Your task to perform on an android device: View the shopping cart on costco.com. Add razer thresher to the cart on costco.com Image 0: 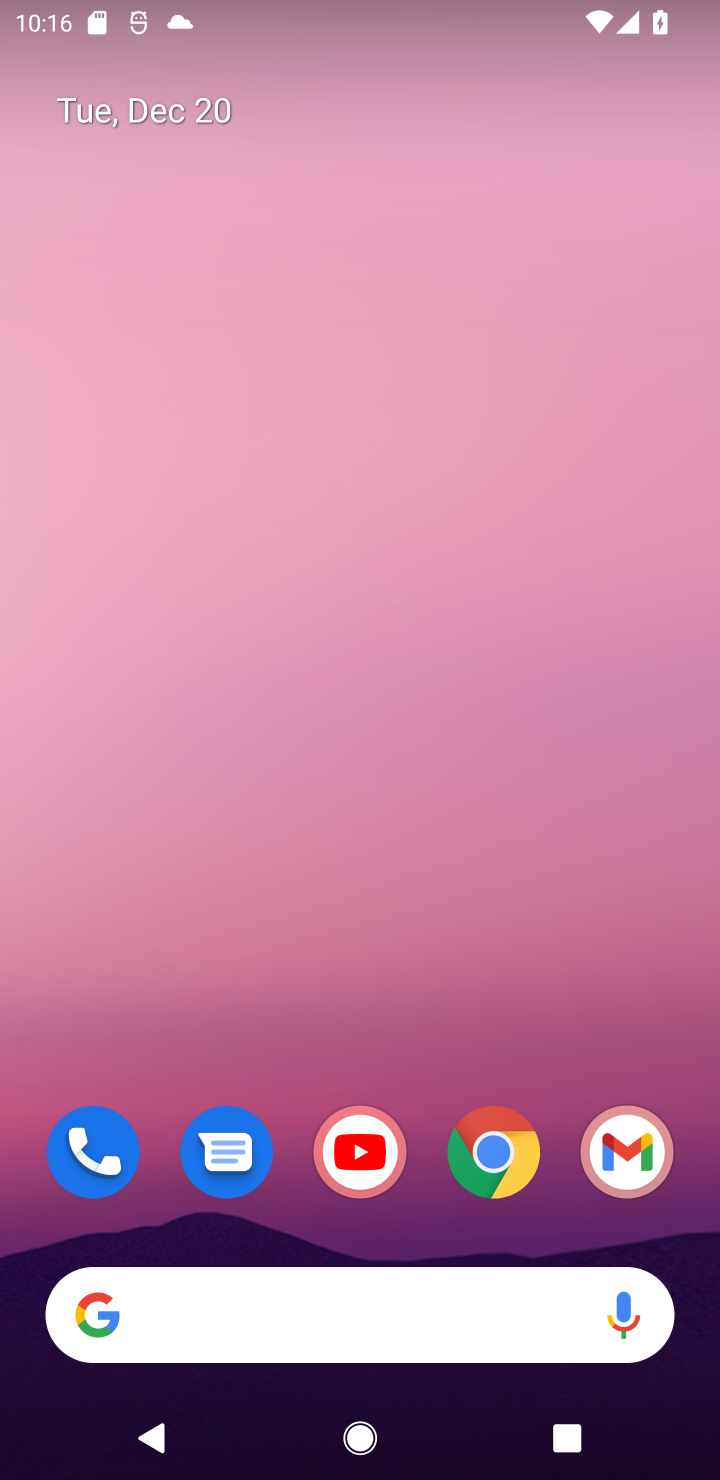
Step 0: click (502, 1164)
Your task to perform on an android device: View the shopping cart on costco.com. Add razer thresher to the cart on costco.com Image 1: 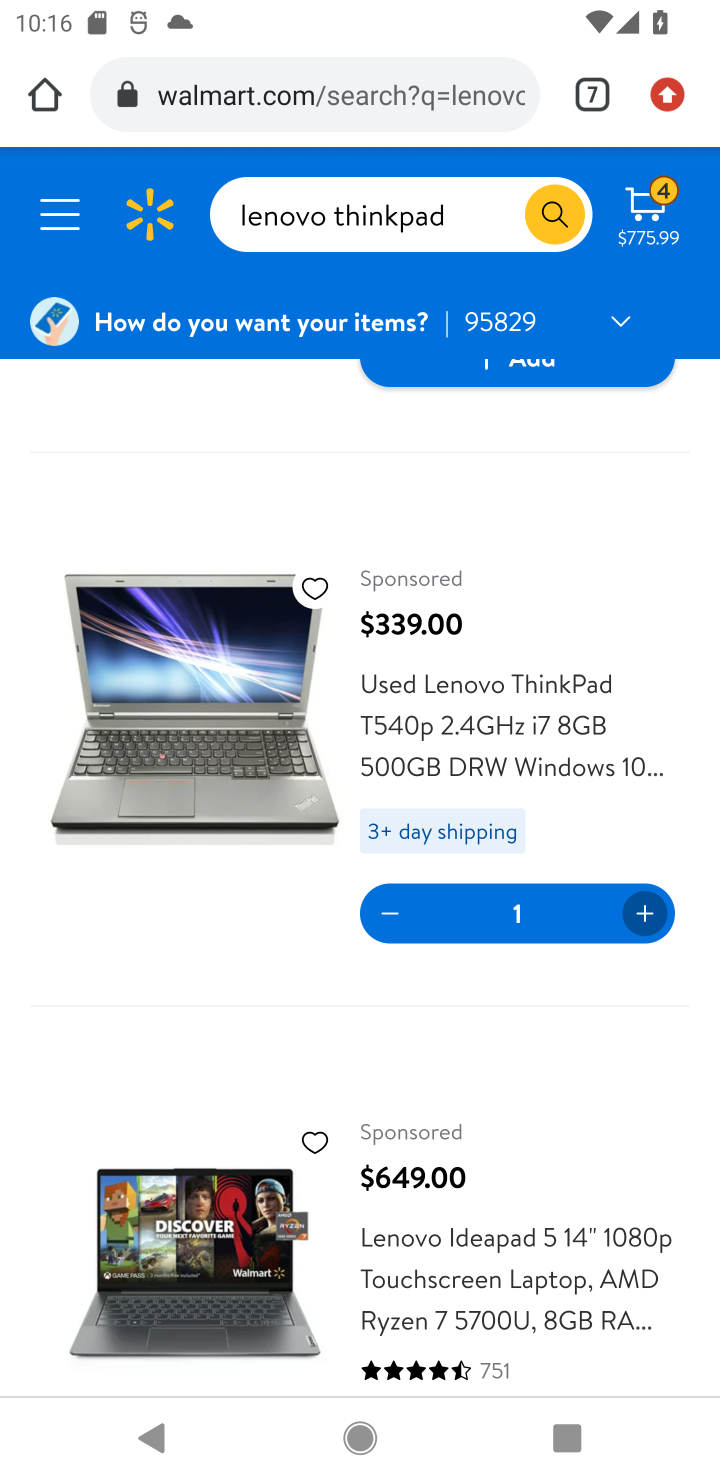
Step 1: click (583, 83)
Your task to perform on an android device: View the shopping cart on costco.com. Add razer thresher to the cart on costco.com Image 2: 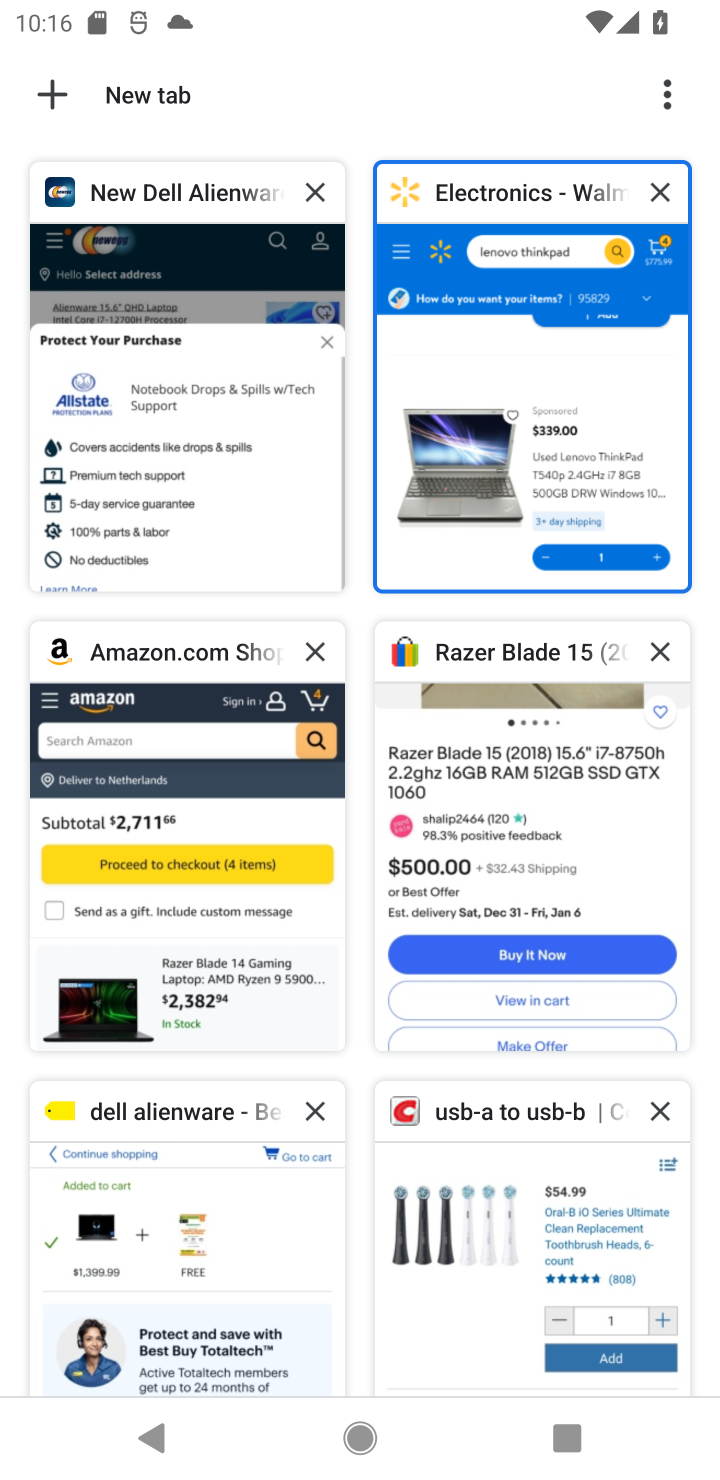
Step 2: click (489, 1202)
Your task to perform on an android device: View the shopping cart on costco.com. Add razer thresher to the cart on costco.com Image 3: 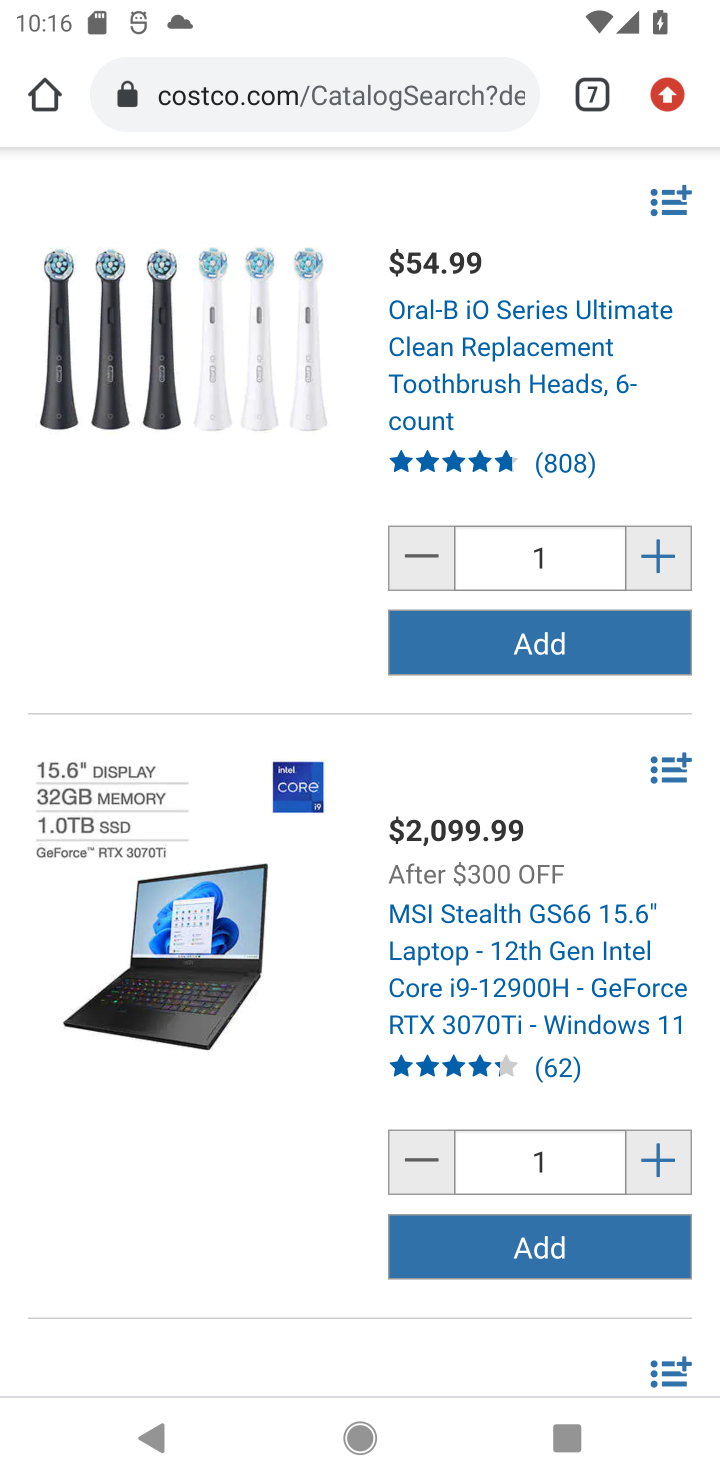
Step 3: drag from (561, 231) to (507, 1178)
Your task to perform on an android device: View the shopping cart on costco.com. Add razer thresher to the cart on costco.com Image 4: 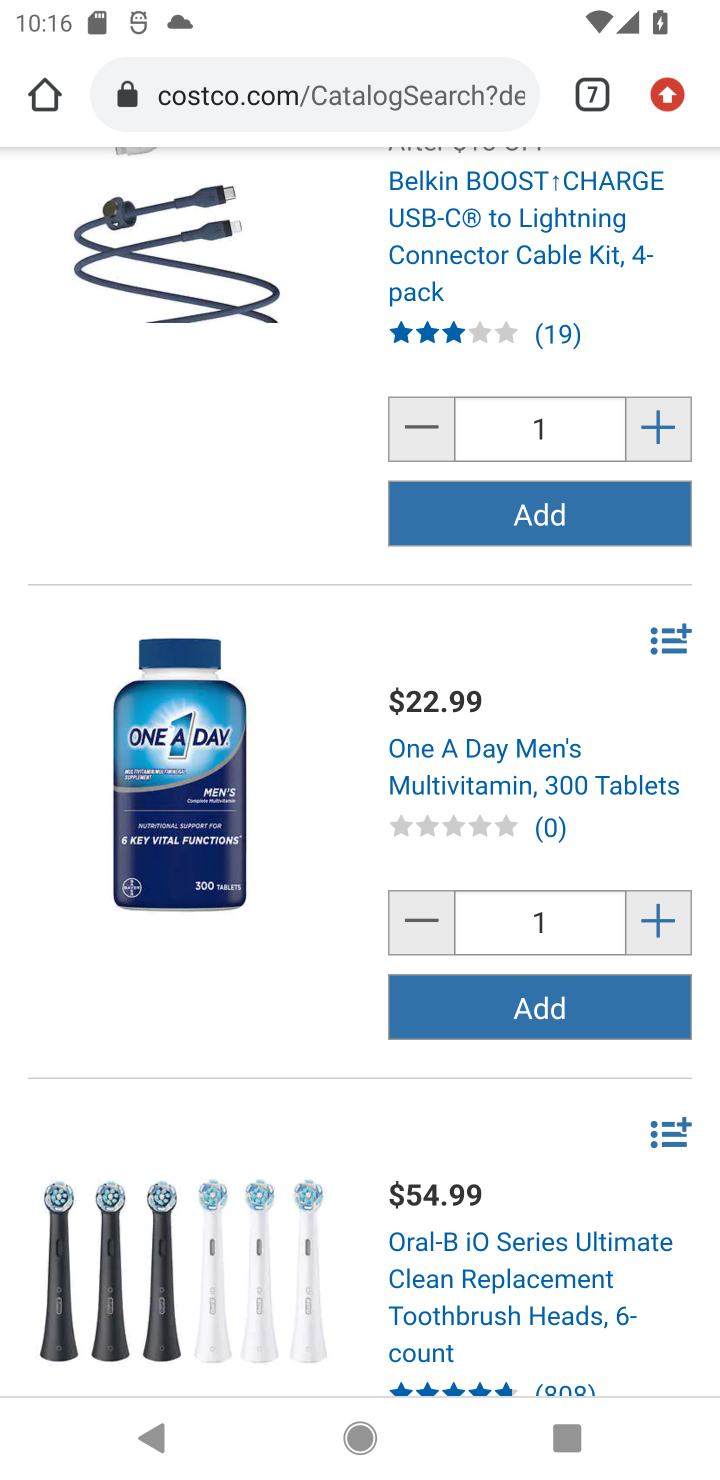
Step 4: drag from (622, 324) to (458, 998)
Your task to perform on an android device: View the shopping cart on costco.com. Add razer thresher to the cart on costco.com Image 5: 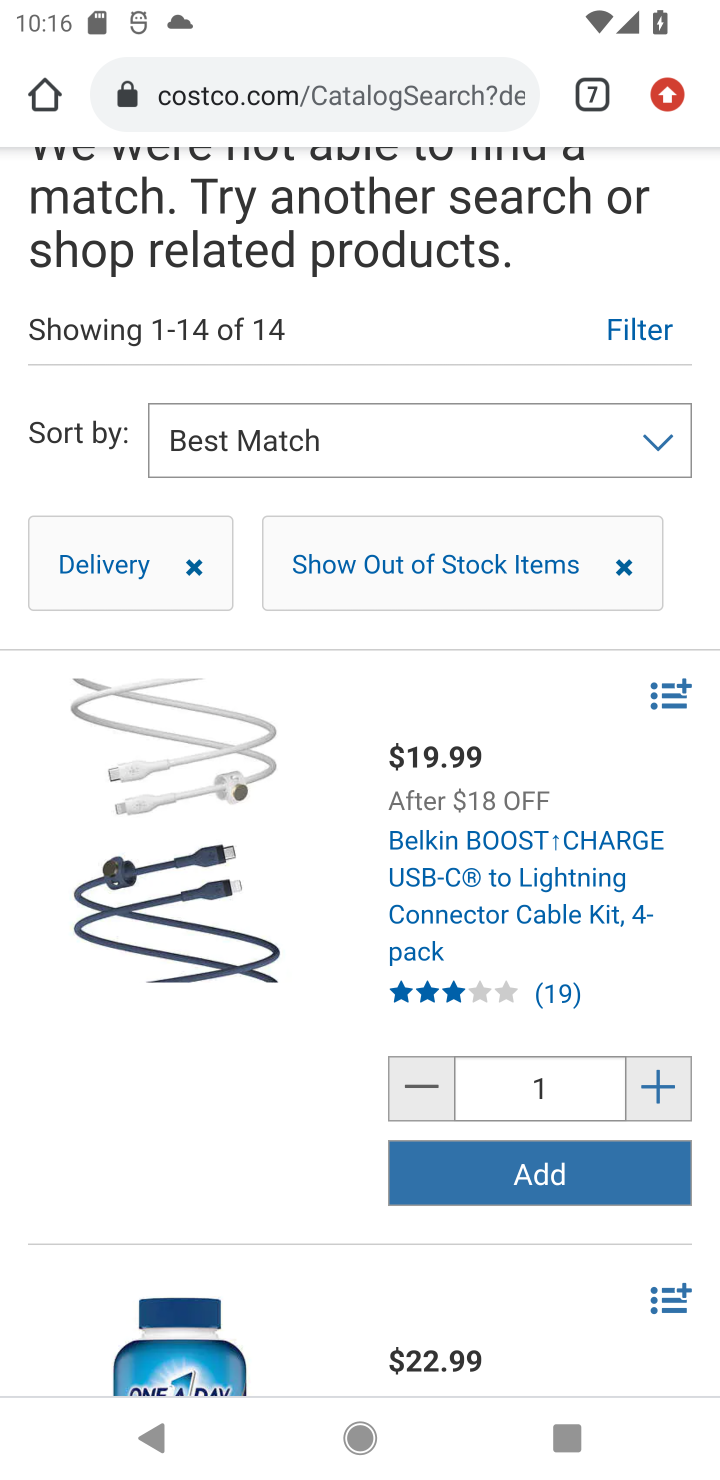
Step 5: drag from (587, 203) to (380, 1214)
Your task to perform on an android device: View the shopping cart on costco.com. Add razer thresher to the cart on costco.com Image 6: 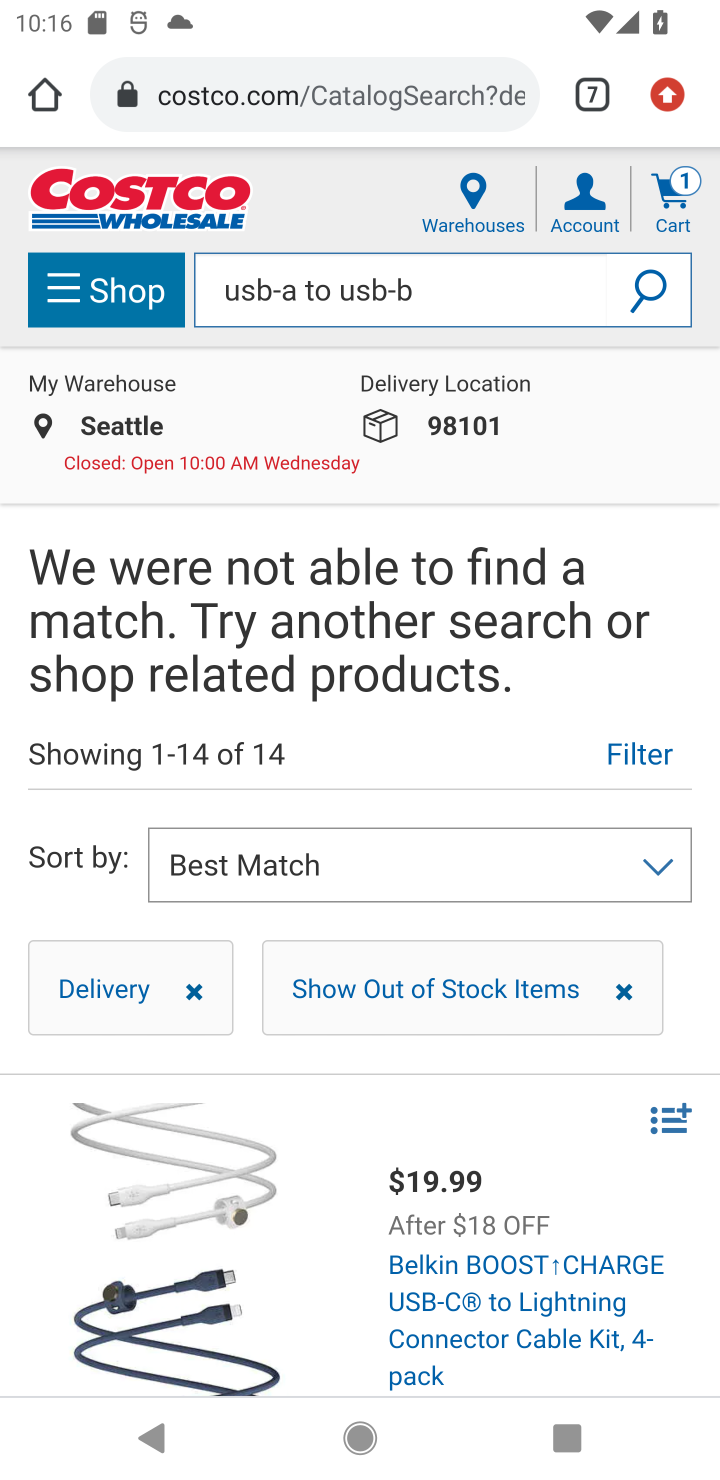
Step 6: click (671, 209)
Your task to perform on an android device: View the shopping cart on costco.com. Add razer thresher to the cart on costco.com Image 7: 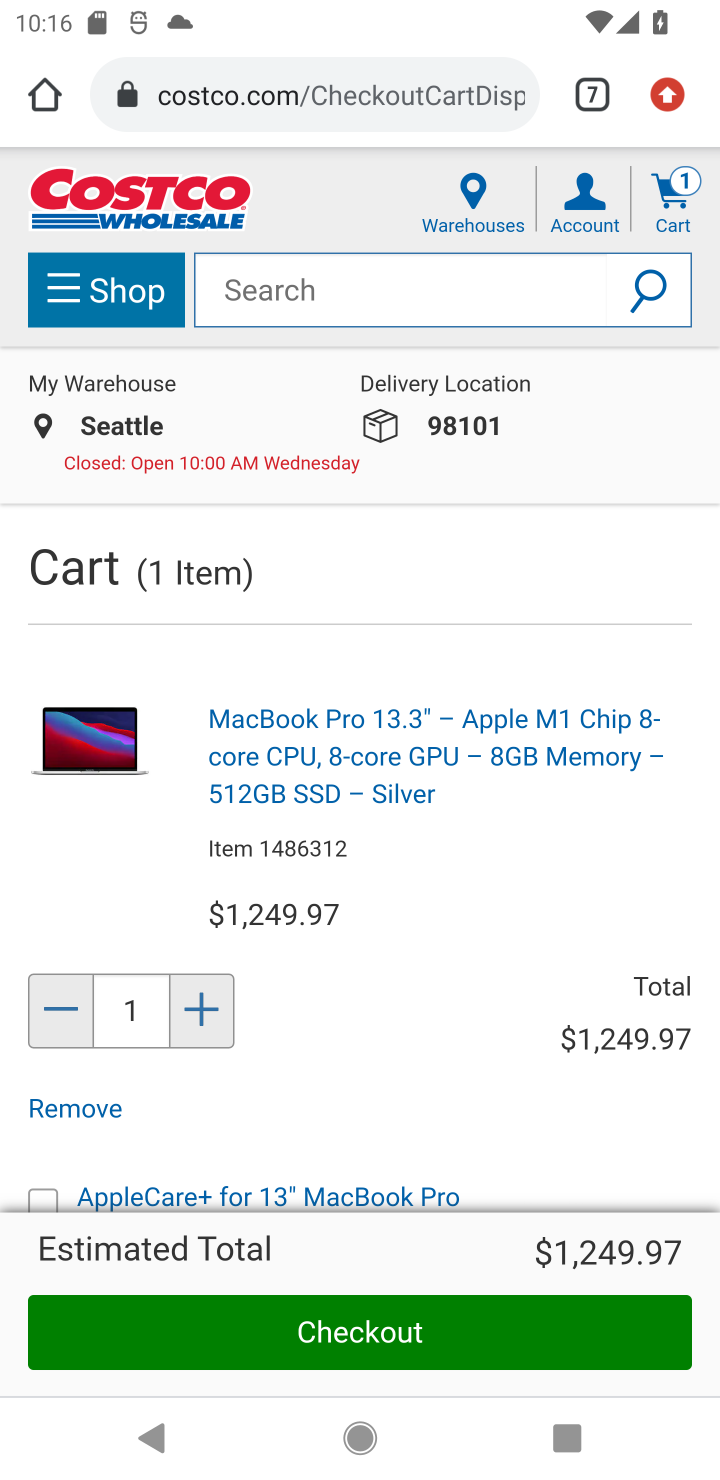
Step 7: click (327, 310)
Your task to perform on an android device: View the shopping cart on costco.com. Add razer thresher to the cart on costco.com Image 8: 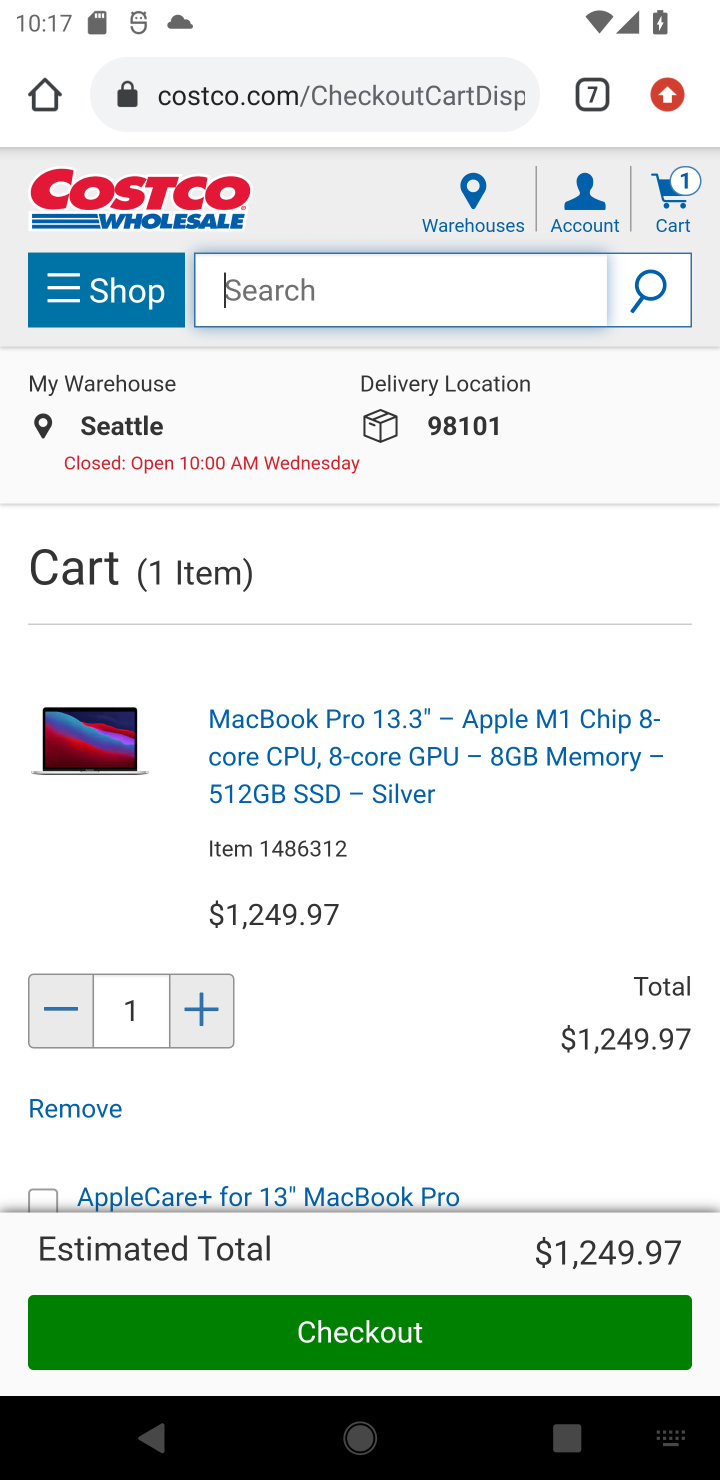
Step 8: type "razer thresher"
Your task to perform on an android device: View the shopping cart on costco.com. Add razer thresher to the cart on costco.com Image 9: 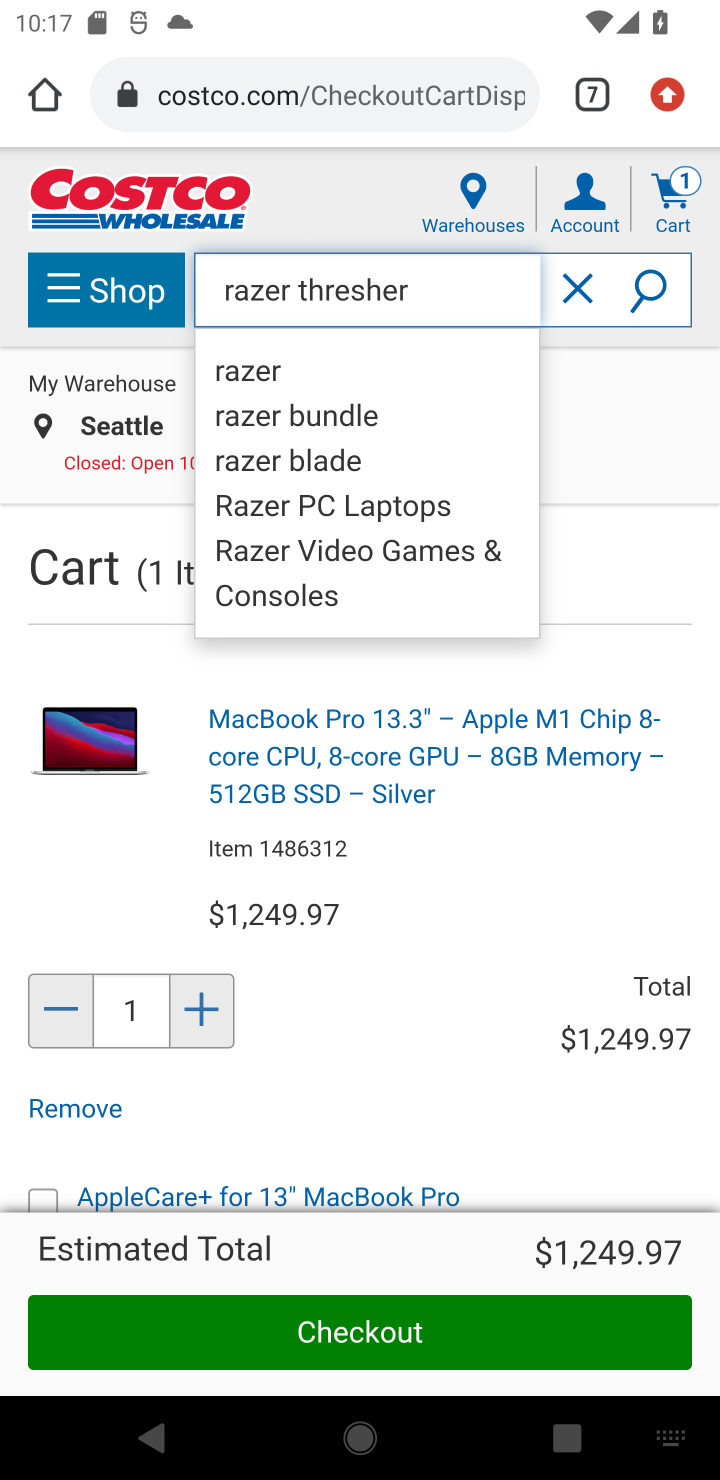
Step 9: click (656, 278)
Your task to perform on an android device: View the shopping cart on costco.com. Add razer thresher to the cart on costco.com Image 10: 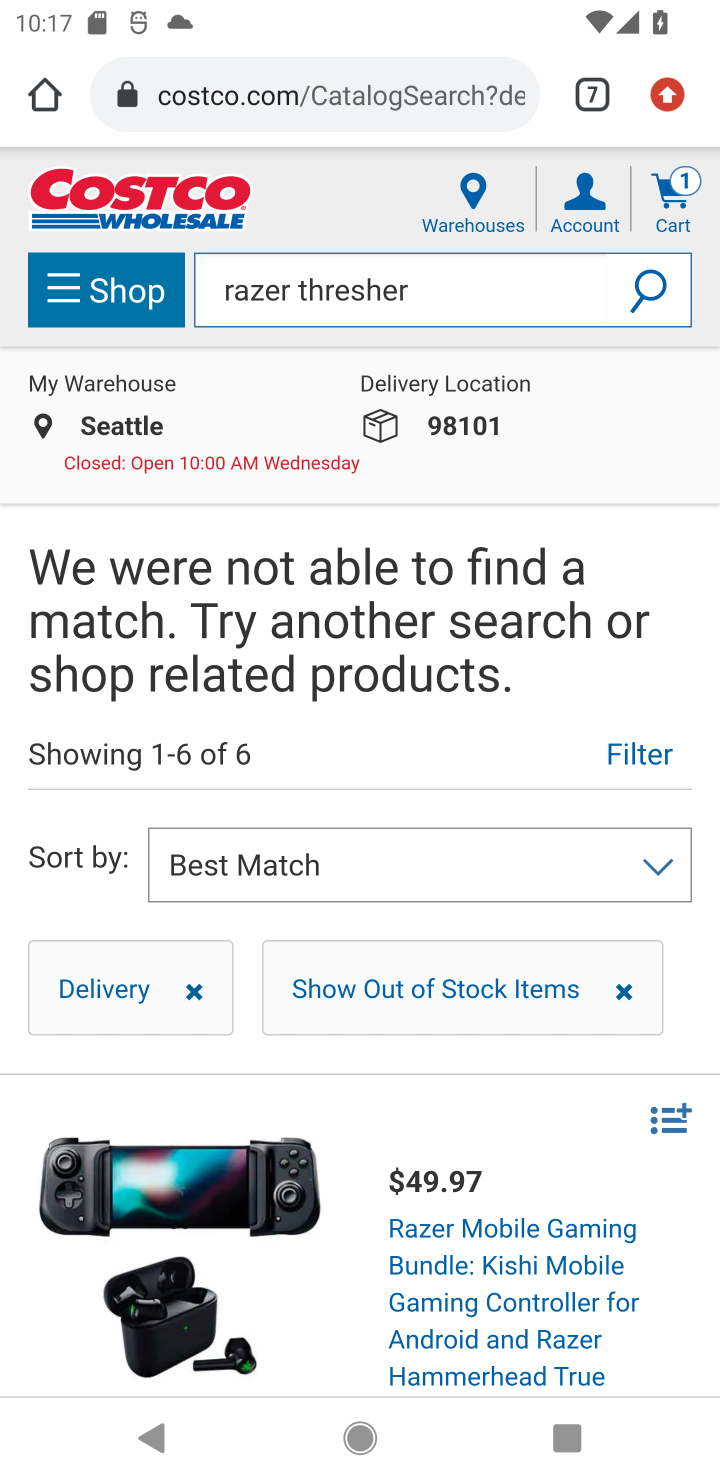
Step 10: task complete